Your task to perform on an android device: snooze an email in the gmail app Image 0: 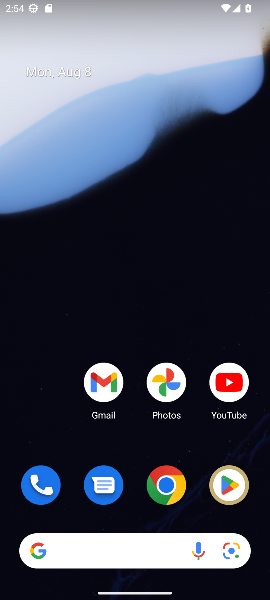
Step 0: drag from (142, 312) to (87, 13)
Your task to perform on an android device: snooze an email in the gmail app Image 1: 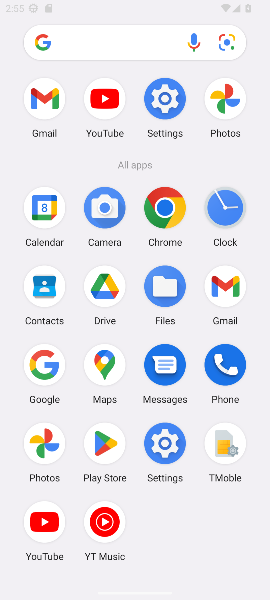
Step 1: drag from (194, 442) to (251, 128)
Your task to perform on an android device: snooze an email in the gmail app Image 2: 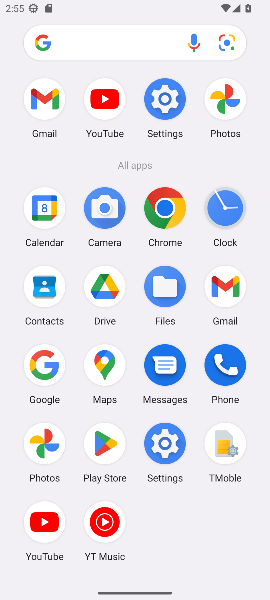
Step 2: click (217, 287)
Your task to perform on an android device: snooze an email in the gmail app Image 3: 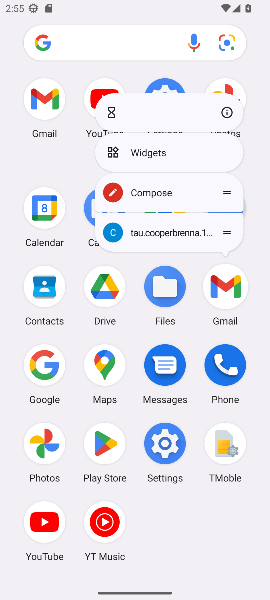
Step 3: click (217, 287)
Your task to perform on an android device: snooze an email in the gmail app Image 4: 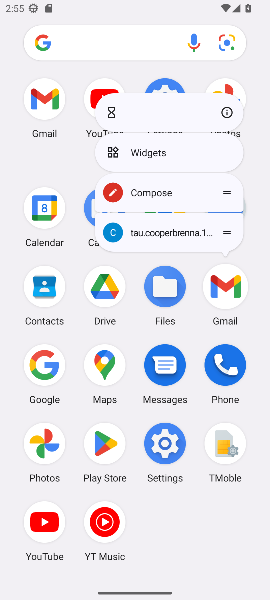
Step 4: click (217, 287)
Your task to perform on an android device: snooze an email in the gmail app Image 5: 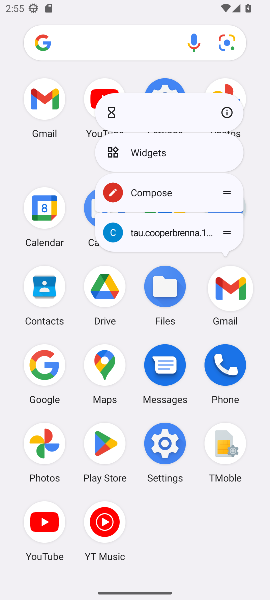
Step 5: click (225, 291)
Your task to perform on an android device: snooze an email in the gmail app Image 6: 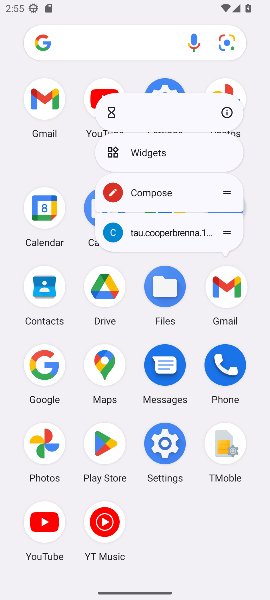
Step 6: click (225, 291)
Your task to perform on an android device: snooze an email in the gmail app Image 7: 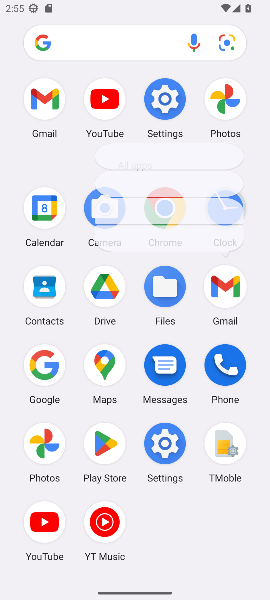
Step 7: click (225, 291)
Your task to perform on an android device: snooze an email in the gmail app Image 8: 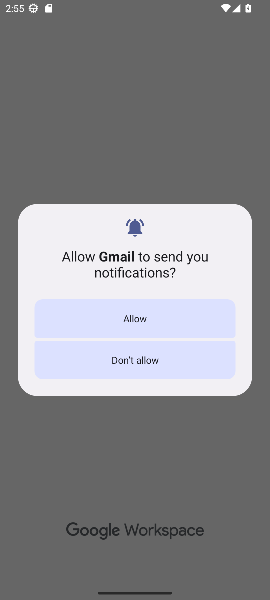
Step 8: click (225, 291)
Your task to perform on an android device: snooze an email in the gmail app Image 9: 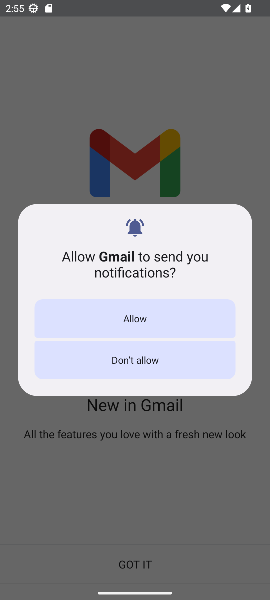
Step 9: click (160, 322)
Your task to perform on an android device: snooze an email in the gmail app Image 10: 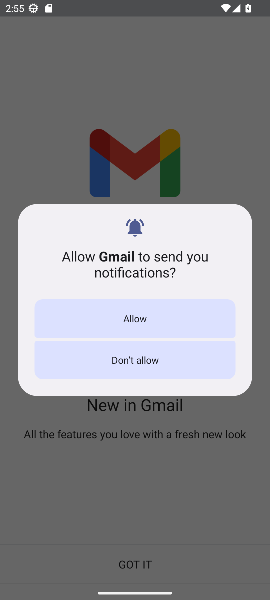
Step 10: click (162, 323)
Your task to perform on an android device: snooze an email in the gmail app Image 11: 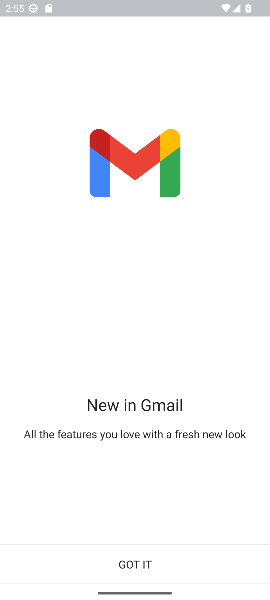
Step 11: click (142, 562)
Your task to perform on an android device: snooze an email in the gmail app Image 12: 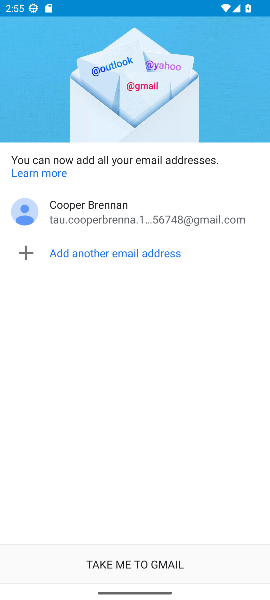
Step 12: click (142, 562)
Your task to perform on an android device: snooze an email in the gmail app Image 13: 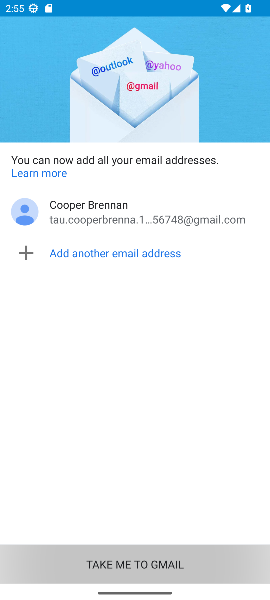
Step 13: click (142, 562)
Your task to perform on an android device: snooze an email in the gmail app Image 14: 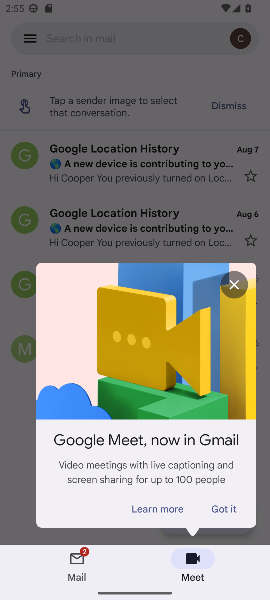
Step 14: click (29, 38)
Your task to perform on an android device: snooze an email in the gmail app Image 15: 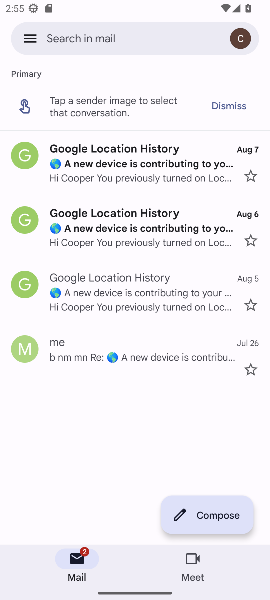
Step 15: drag from (29, 38) to (33, 123)
Your task to perform on an android device: snooze an email in the gmail app Image 16: 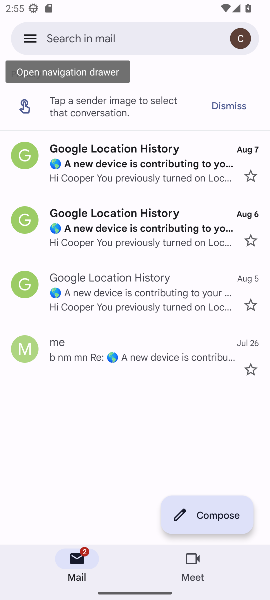
Step 16: click (24, 38)
Your task to perform on an android device: snooze an email in the gmail app Image 17: 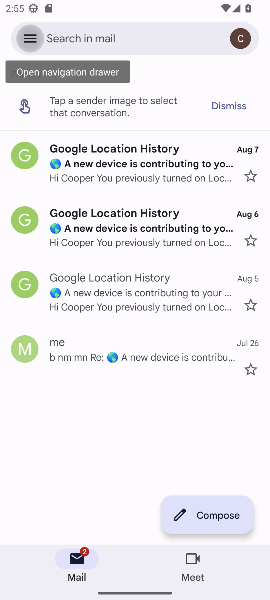
Step 17: drag from (24, 38) to (30, 99)
Your task to perform on an android device: snooze an email in the gmail app Image 18: 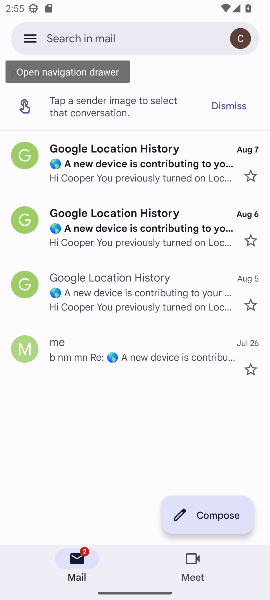
Step 18: click (31, 41)
Your task to perform on an android device: snooze an email in the gmail app Image 19: 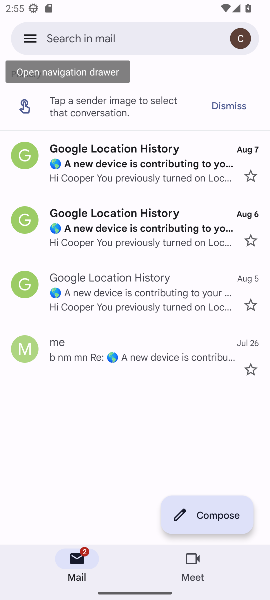
Step 19: click (30, 41)
Your task to perform on an android device: snooze an email in the gmail app Image 20: 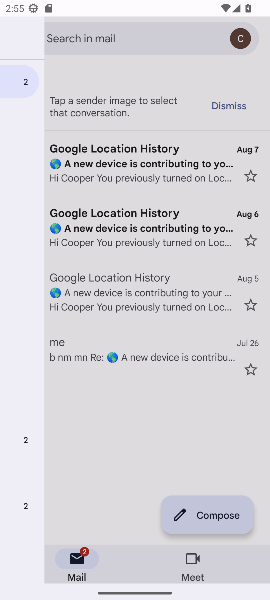
Step 20: click (33, 41)
Your task to perform on an android device: snooze an email in the gmail app Image 21: 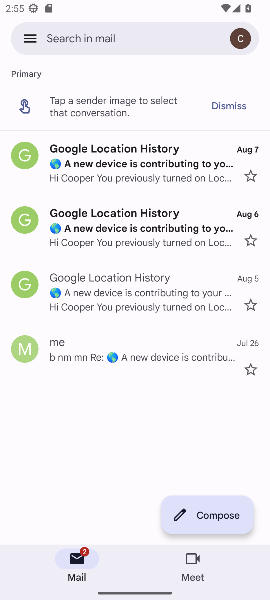
Step 21: click (36, 40)
Your task to perform on an android device: snooze an email in the gmail app Image 22: 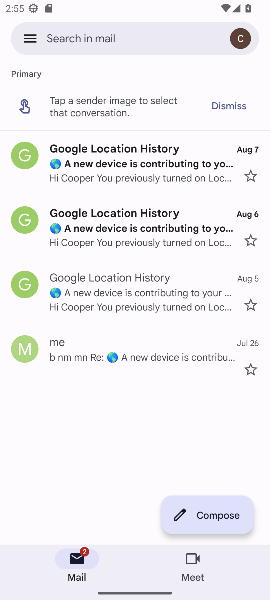
Step 22: drag from (36, 40) to (42, 125)
Your task to perform on an android device: snooze an email in the gmail app Image 23: 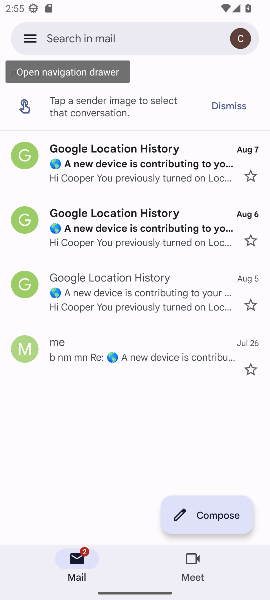
Step 23: click (30, 40)
Your task to perform on an android device: snooze an email in the gmail app Image 24: 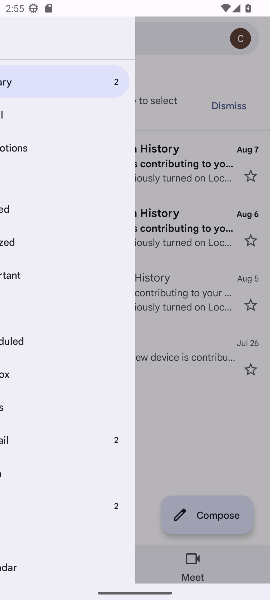
Step 24: click (30, 40)
Your task to perform on an android device: snooze an email in the gmail app Image 25: 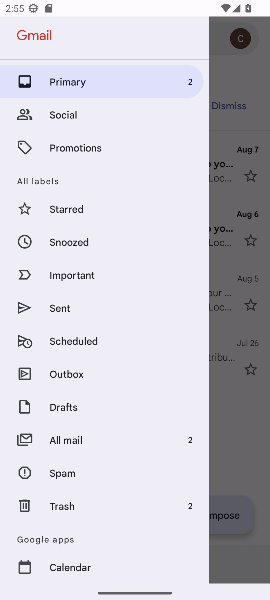
Step 25: click (61, 239)
Your task to perform on an android device: snooze an email in the gmail app Image 26: 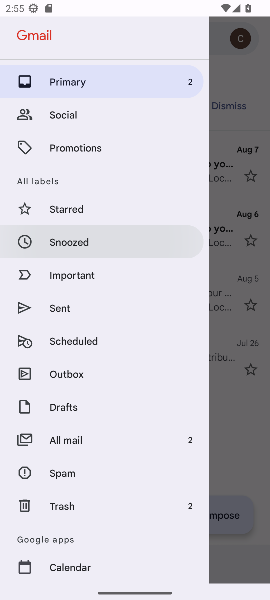
Step 26: click (61, 239)
Your task to perform on an android device: snooze an email in the gmail app Image 27: 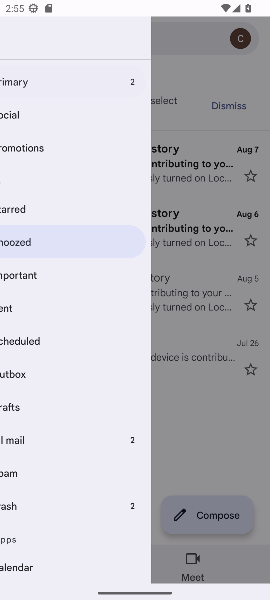
Step 27: click (62, 240)
Your task to perform on an android device: snooze an email in the gmail app Image 28: 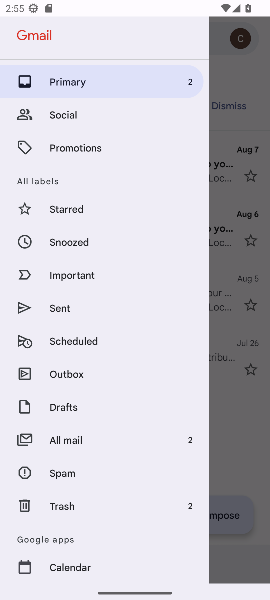
Step 28: click (75, 244)
Your task to perform on an android device: snooze an email in the gmail app Image 29: 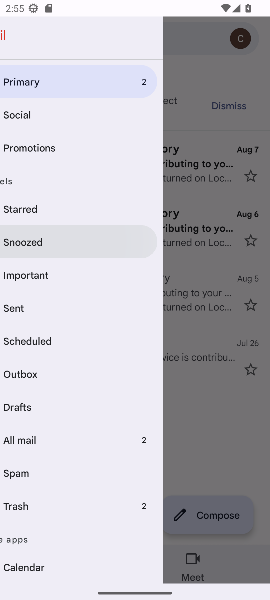
Step 29: click (75, 246)
Your task to perform on an android device: snooze an email in the gmail app Image 30: 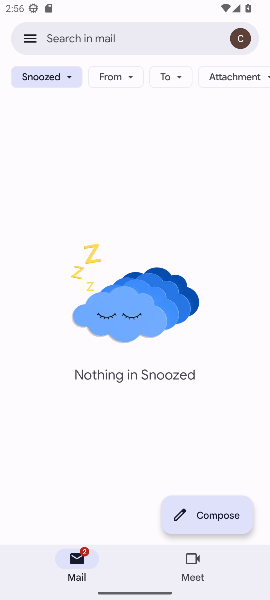
Step 30: click (27, 33)
Your task to perform on an android device: snooze an email in the gmail app Image 31: 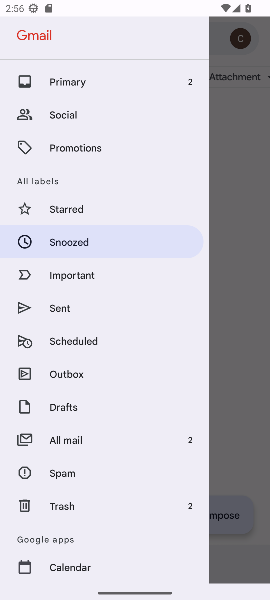
Step 31: click (64, 430)
Your task to perform on an android device: snooze an email in the gmail app Image 32: 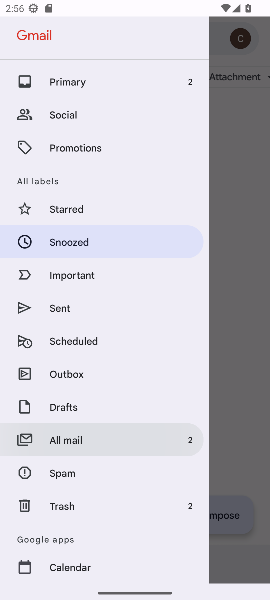
Step 32: click (65, 439)
Your task to perform on an android device: snooze an email in the gmail app Image 33: 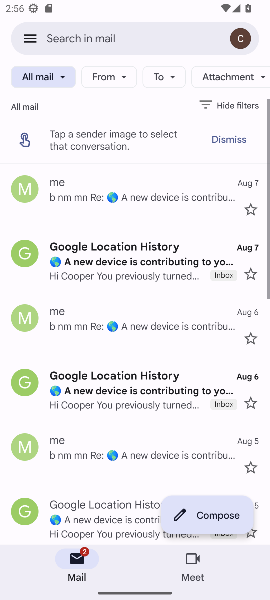
Step 33: drag from (83, 132) to (83, 170)
Your task to perform on an android device: snooze an email in the gmail app Image 34: 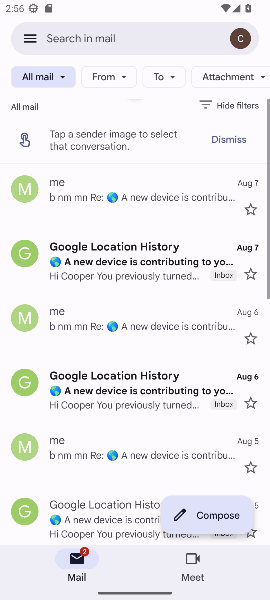
Step 34: click (72, 187)
Your task to perform on an android device: snooze an email in the gmail app Image 35: 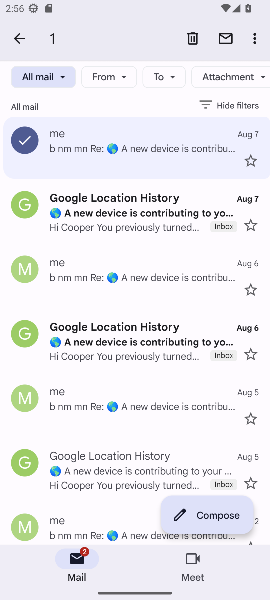
Step 35: click (254, 42)
Your task to perform on an android device: snooze an email in the gmail app Image 36: 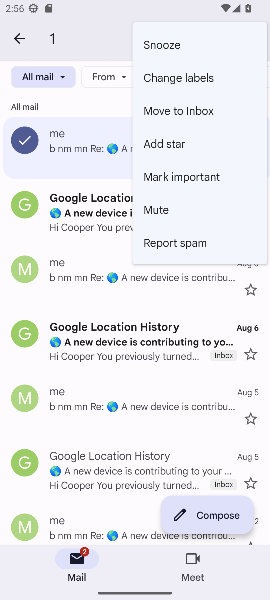
Step 36: click (153, 40)
Your task to perform on an android device: snooze an email in the gmail app Image 37: 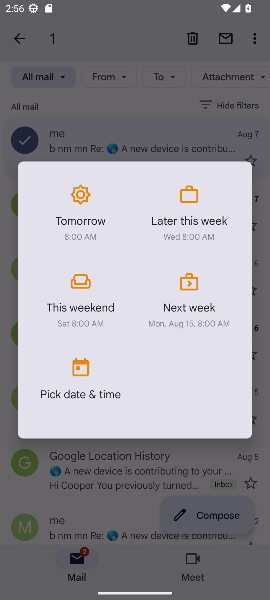
Step 37: click (80, 222)
Your task to perform on an android device: snooze an email in the gmail app Image 38: 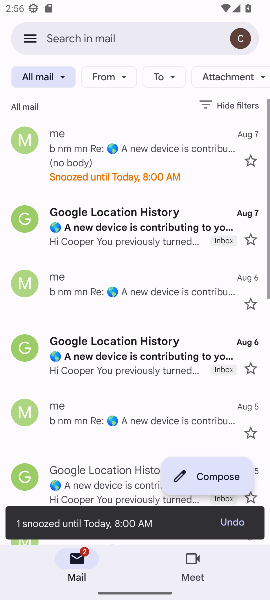
Step 38: task complete